Your task to perform on an android device: change notification settings in the gmail app Image 0: 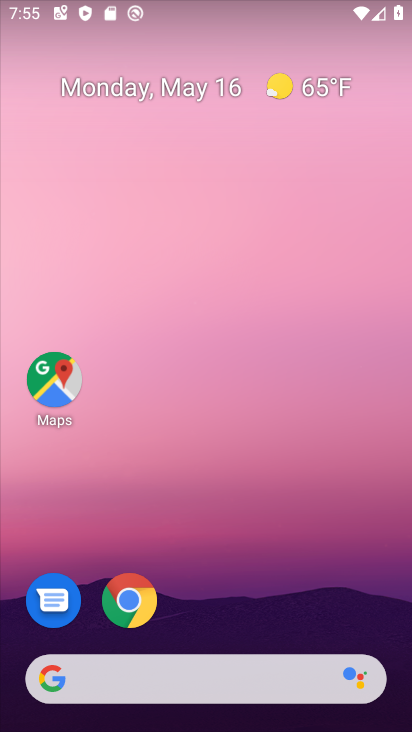
Step 0: drag from (215, 437) to (258, 100)
Your task to perform on an android device: change notification settings in the gmail app Image 1: 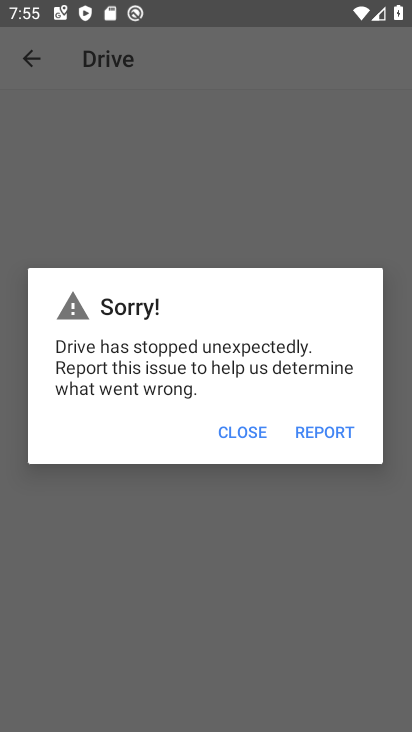
Step 1: press home button
Your task to perform on an android device: change notification settings in the gmail app Image 2: 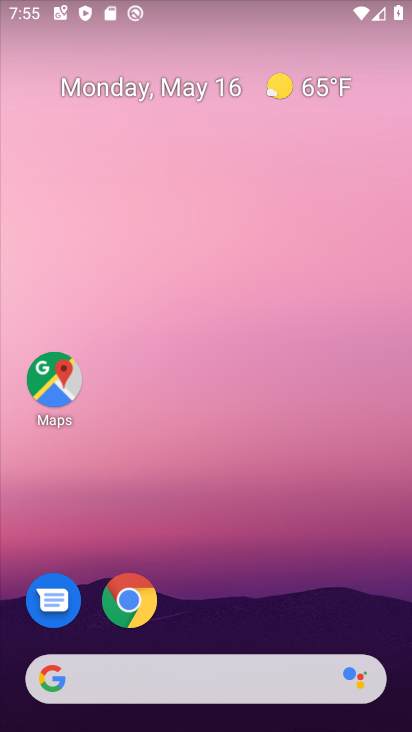
Step 2: drag from (214, 652) to (304, 108)
Your task to perform on an android device: change notification settings in the gmail app Image 3: 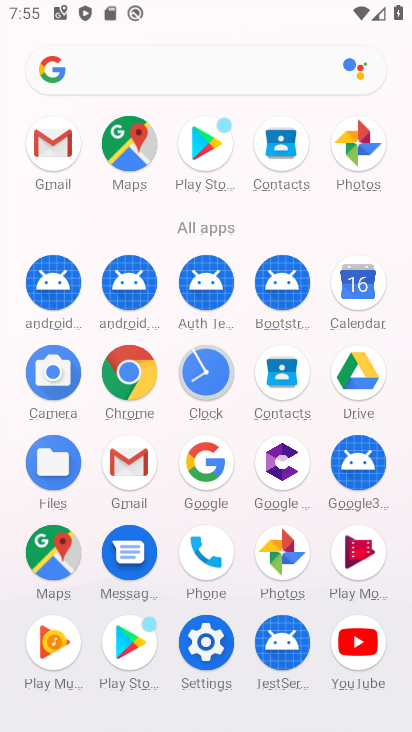
Step 3: click (120, 453)
Your task to perform on an android device: change notification settings in the gmail app Image 4: 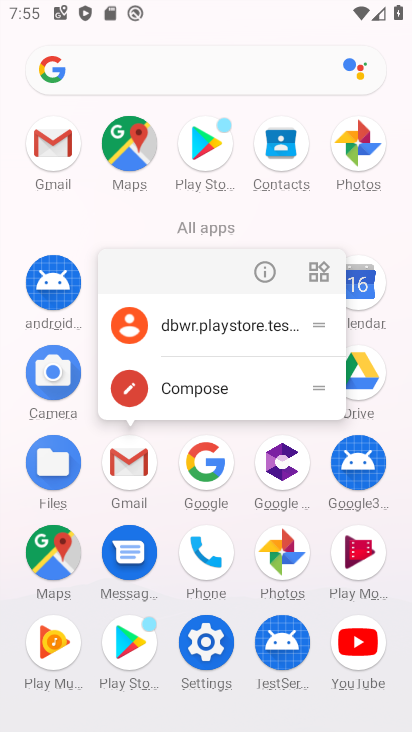
Step 4: click (219, 320)
Your task to perform on an android device: change notification settings in the gmail app Image 5: 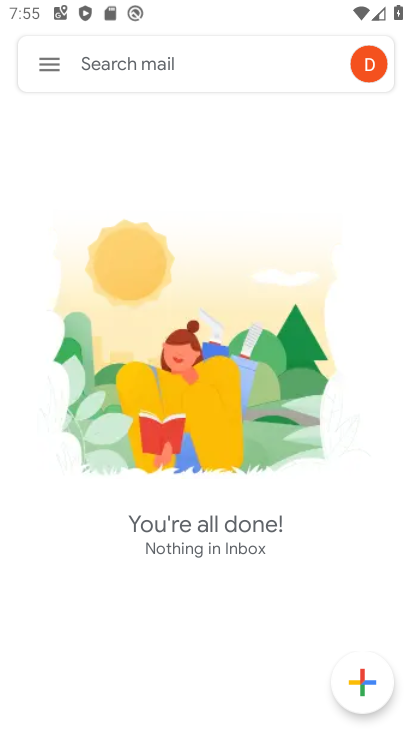
Step 5: click (51, 60)
Your task to perform on an android device: change notification settings in the gmail app Image 6: 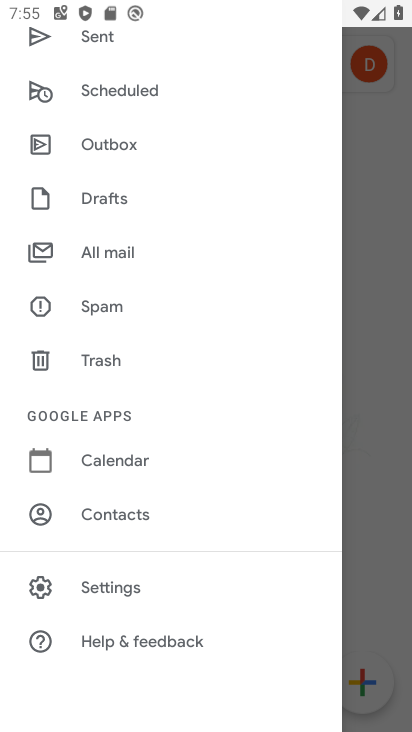
Step 6: click (120, 573)
Your task to perform on an android device: change notification settings in the gmail app Image 7: 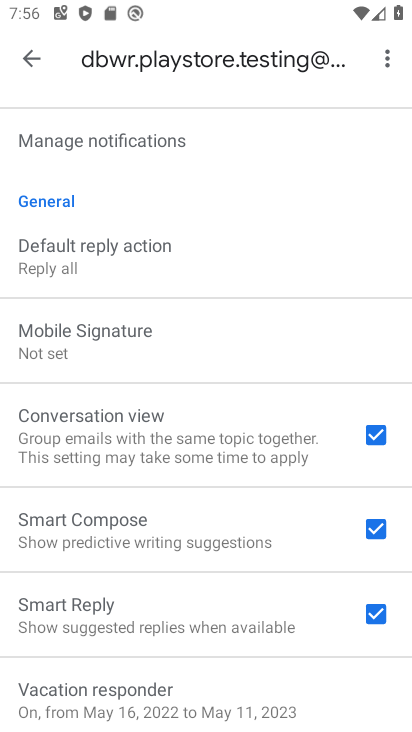
Step 7: click (121, 135)
Your task to perform on an android device: change notification settings in the gmail app Image 8: 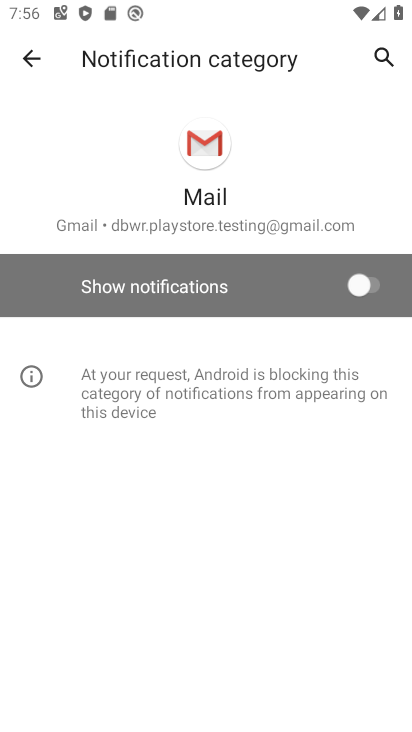
Step 8: click (307, 287)
Your task to perform on an android device: change notification settings in the gmail app Image 9: 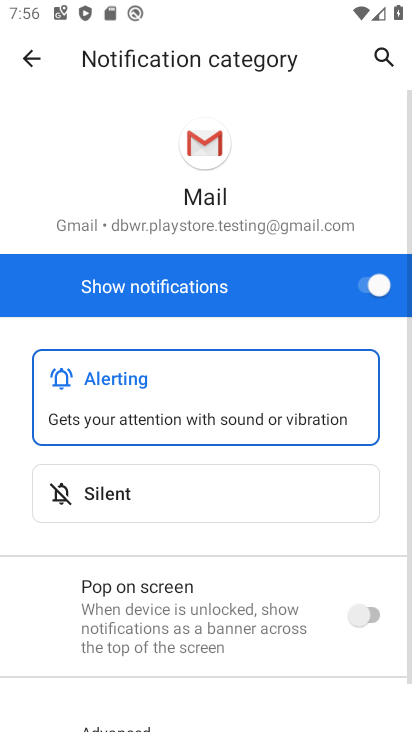
Step 9: task complete